Your task to perform on an android device: turn off airplane mode Image 0: 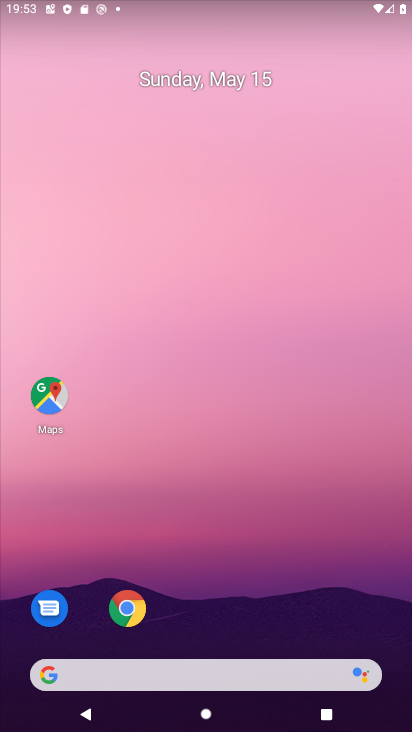
Step 0: drag from (268, 612) to (267, 21)
Your task to perform on an android device: turn off airplane mode Image 1: 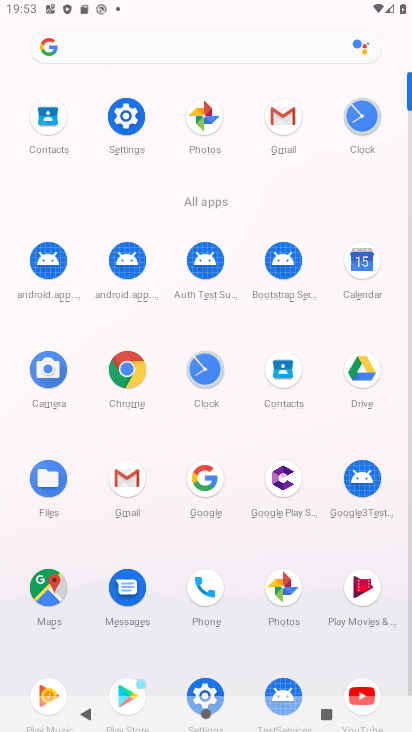
Step 1: click (132, 110)
Your task to perform on an android device: turn off airplane mode Image 2: 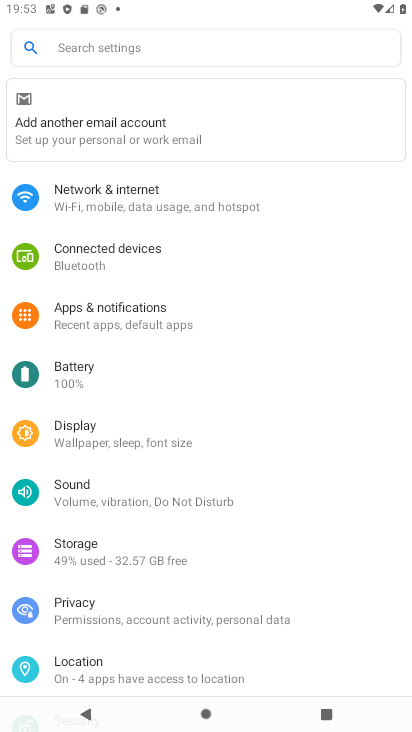
Step 2: click (134, 191)
Your task to perform on an android device: turn off airplane mode Image 3: 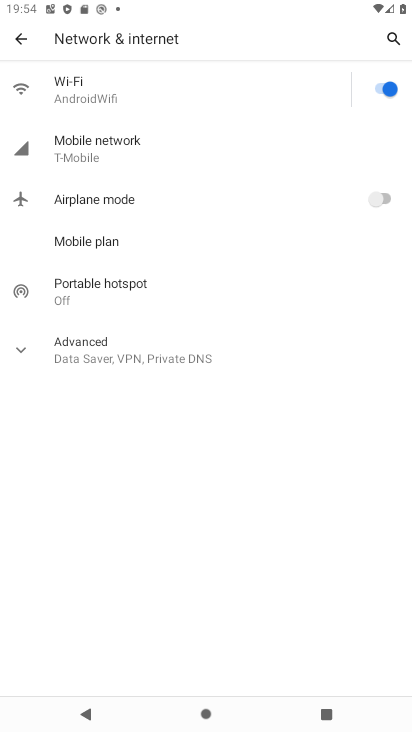
Step 3: task complete